Your task to perform on an android device: Open the map Image 0: 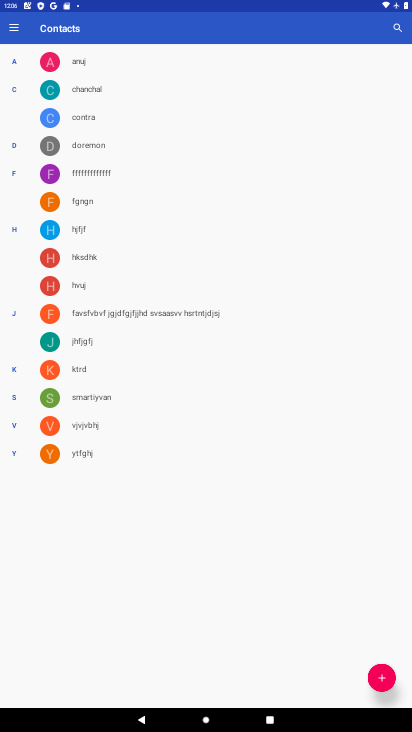
Step 0: press home button
Your task to perform on an android device: Open the map Image 1: 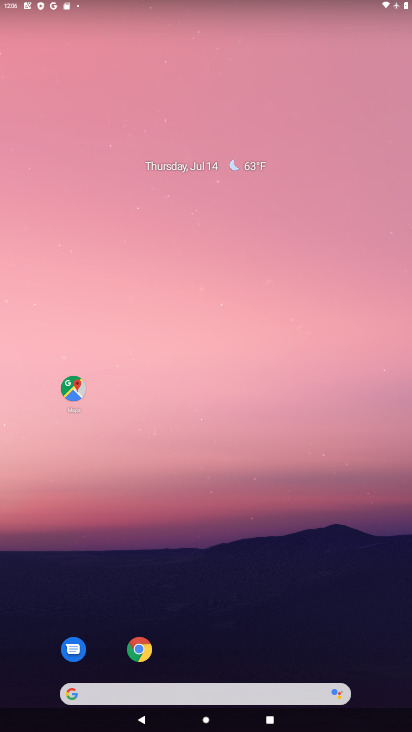
Step 1: drag from (249, 614) to (290, 280)
Your task to perform on an android device: Open the map Image 2: 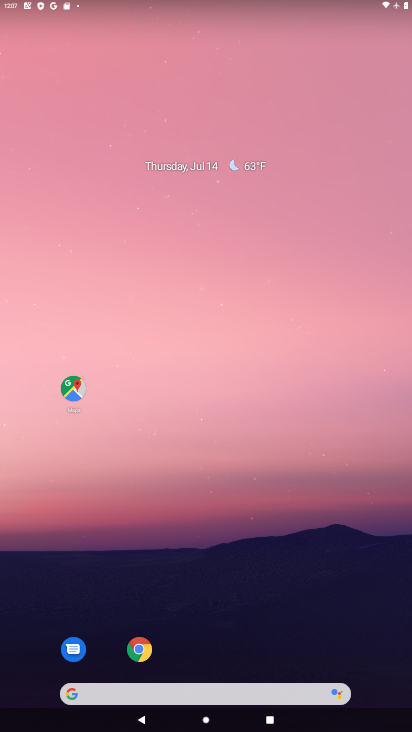
Step 2: click (64, 386)
Your task to perform on an android device: Open the map Image 3: 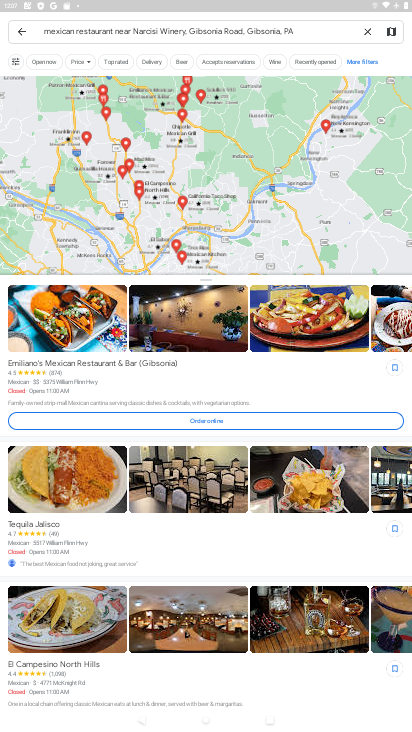
Step 3: task complete